Your task to perform on an android device: Open Amazon Image 0: 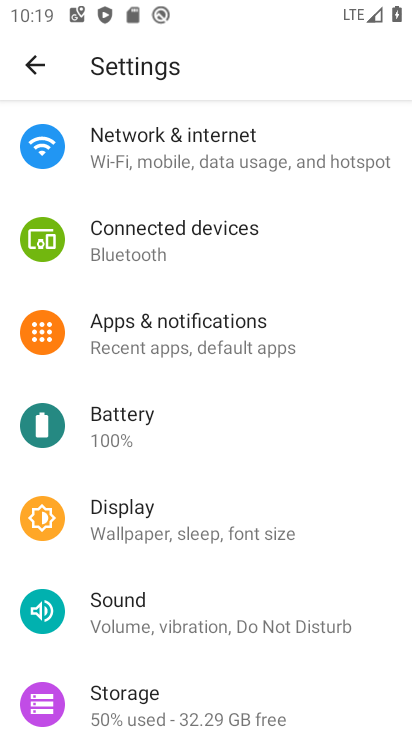
Step 0: press home button
Your task to perform on an android device: Open Amazon Image 1: 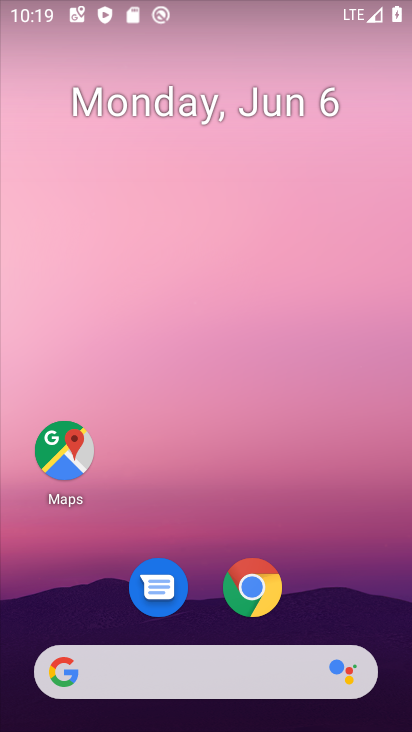
Step 1: click (274, 581)
Your task to perform on an android device: Open Amazon Image 2: 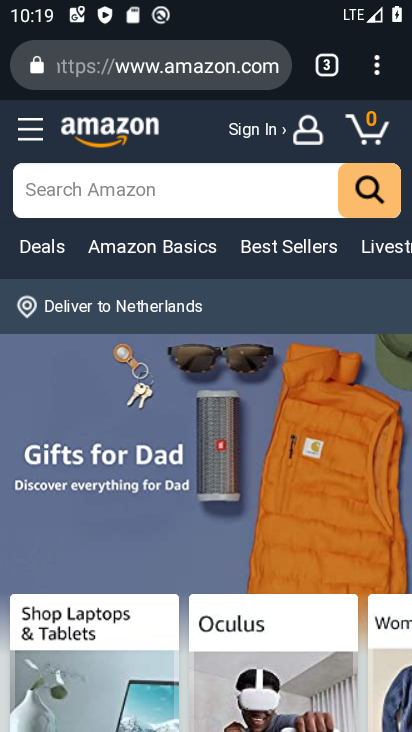
Step 2: task complete